Your task to perform on an android device: turn off translation in the chrome app Image 0: 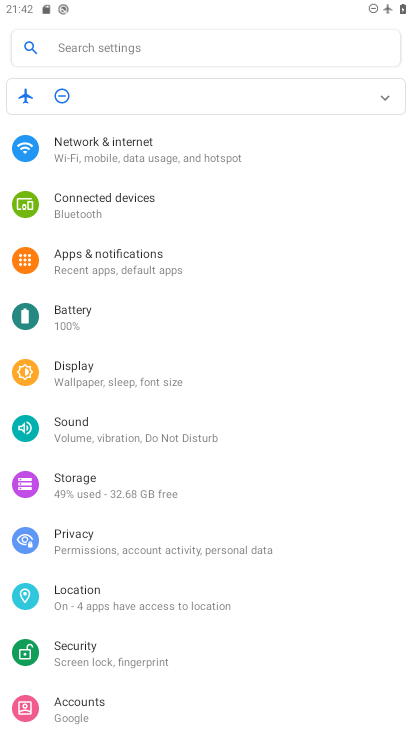
Step 0: press home button
Your task to perform on an android device: turn off translation in the chrome app Image 1: 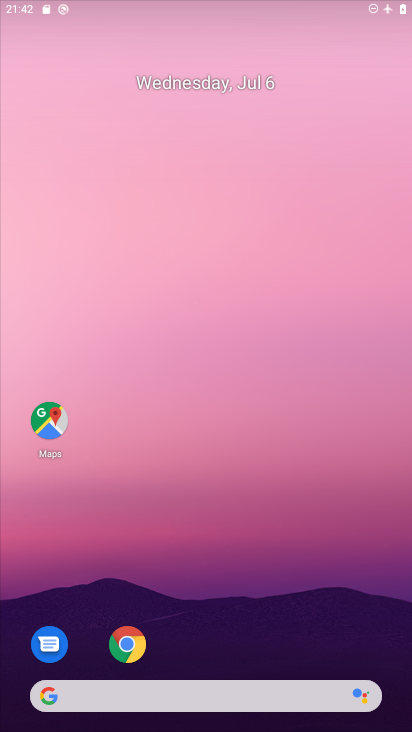
Step 1: click (134, 644)
Your task to perform on an android device: turn off translation in the chrome app Image 2: 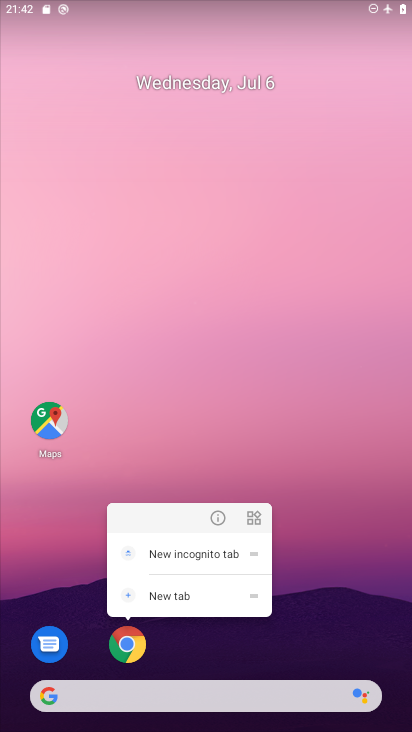
Step 2: click (131, 647)
Your task to perform on an android device: turn off translation in the chrome app Image 3: 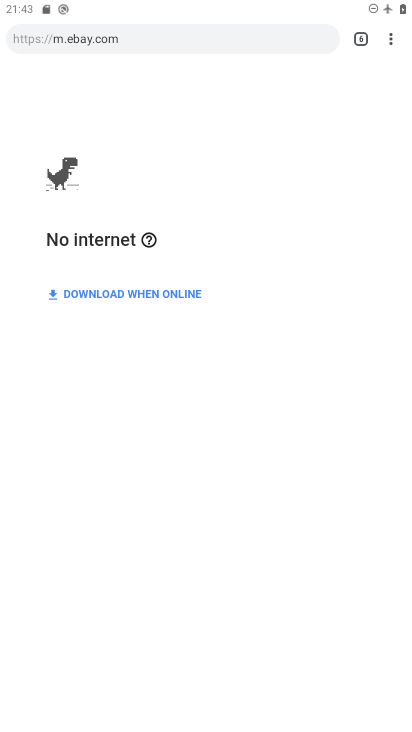
Step 3: click (392, 43)
Your task to perform on an android device: turn off translation in the chrome app Image 4: 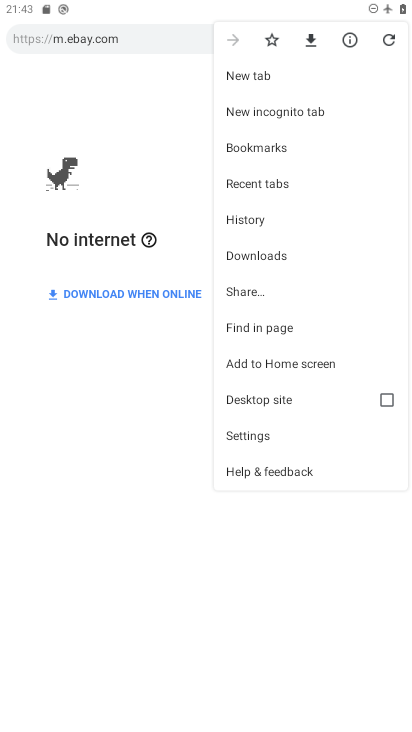
Step 4: click (282, 434)
Your task to perform on an android device: turn off translation in the chrome app Image 5: 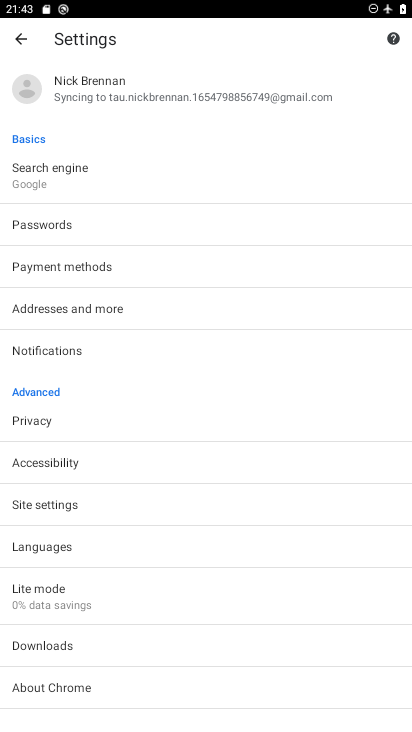
Step 5: click (90, 550)
Your task to perform on an android device: turn off translation in the chrome app Image 6: 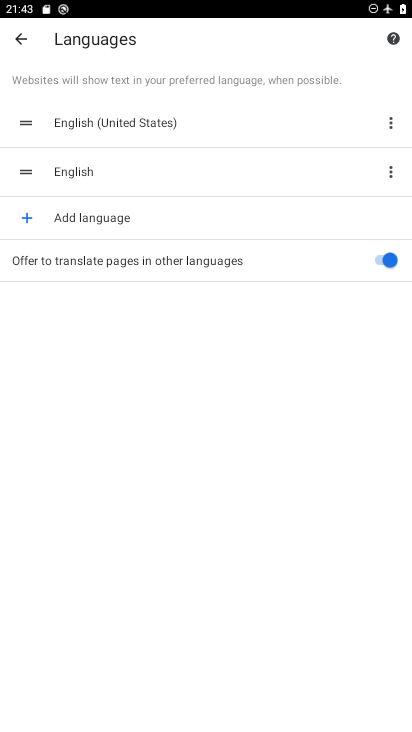
Step 6: click (388, 253)
Your task to perform on an android device: turn off translation in the chrome app Image 7: 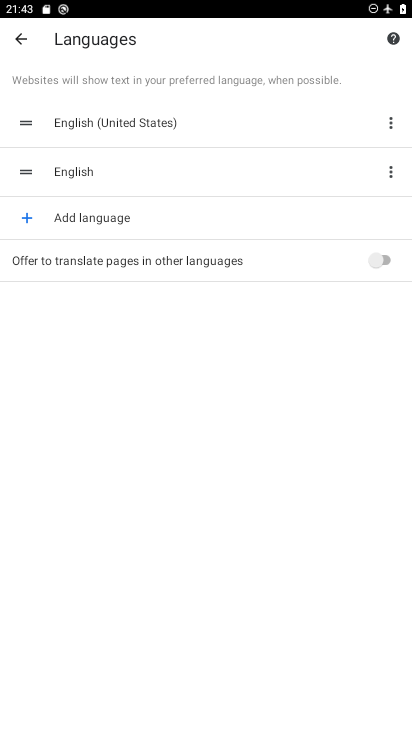
Step 7: task complete